Your task to perform on an android device: Show me recent news Image 0: 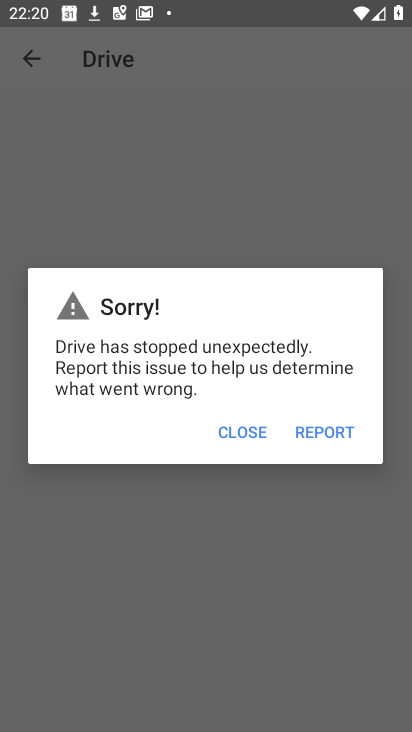
Step 0: press home button
Your task to perform on an android device: Show me recent news Image 1: 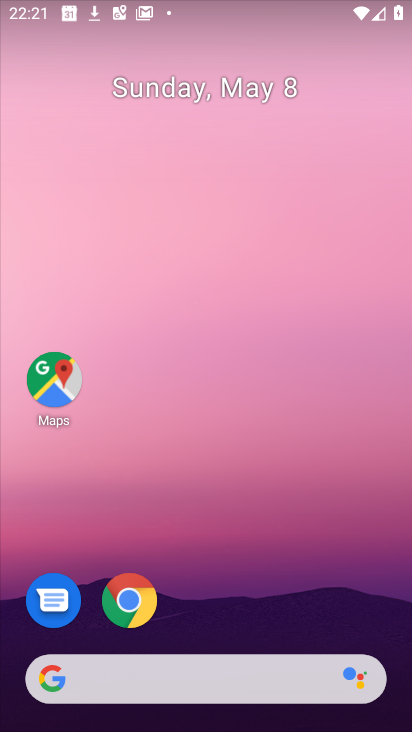
Step 1: drag from (269, 702) to (233, 301)
Your task to perform on an android device: Show me recent news Image 2: 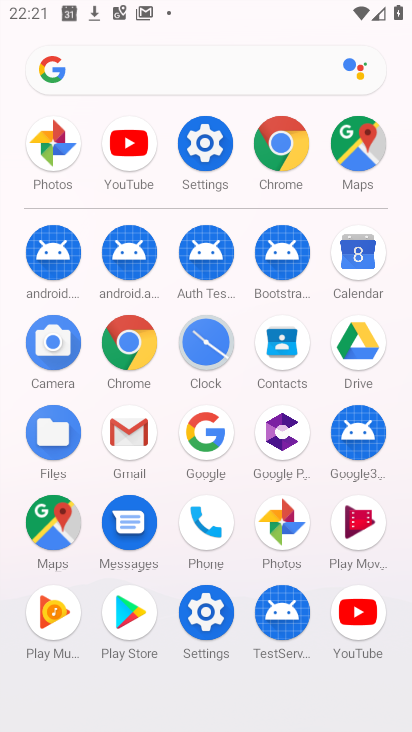
Step 2: click (118, 68)
Your task to perform on an android device: Show me recent news Image 3: 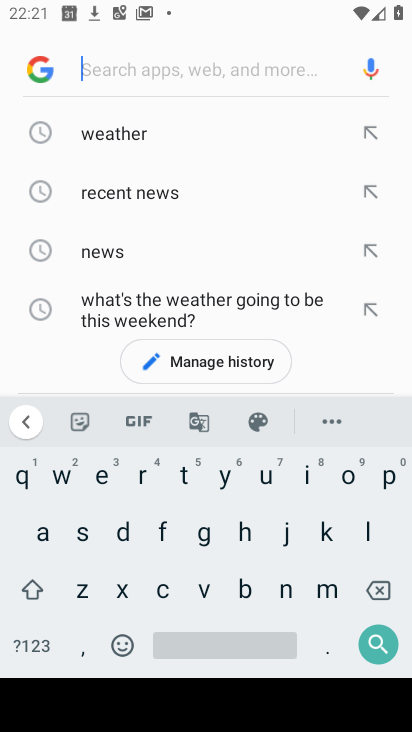
Step 3: click (129, 192)
Your task to perform on an android device: Show me recent news Image 4: 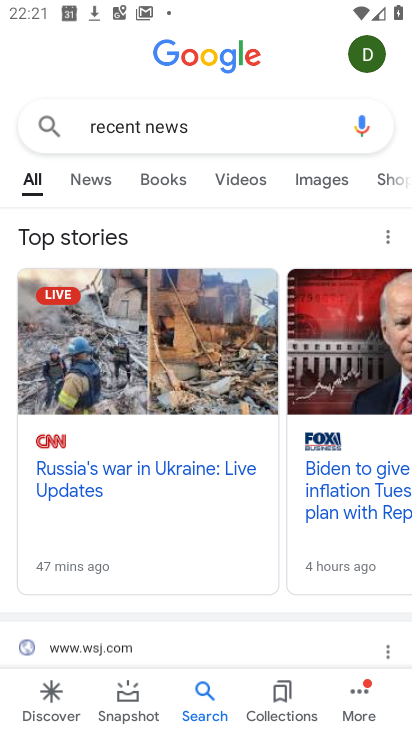
Step 4: task complete